Your task to perform on an android device: What's on my calendar today? Image 0: 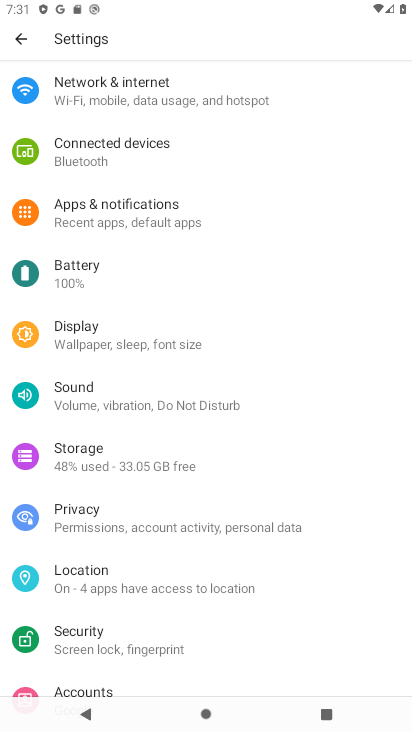
Step 0: press home button
Your task to perform on an android device: What's on my calendar today? Image 1: 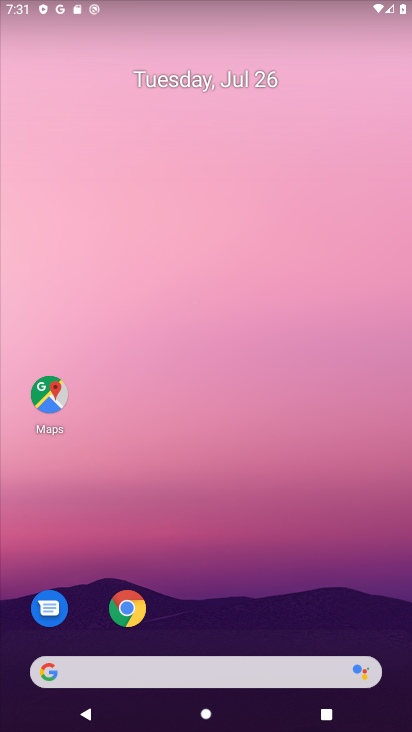
Step 1: drag from (171, 597) to (325, 61)
Your task to perform on an android device: What's on my calendar today? Image 2: 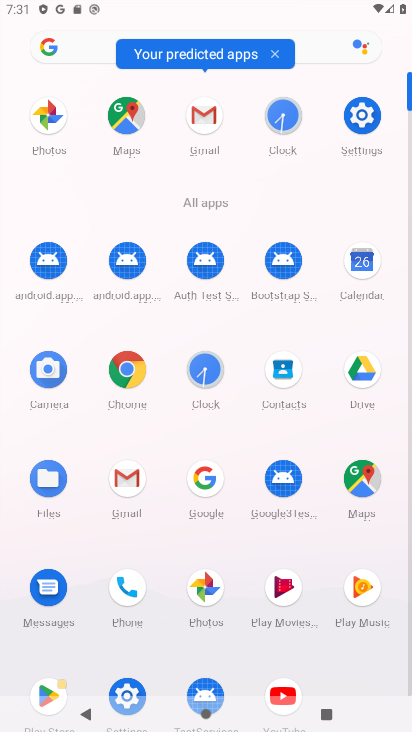
Step 2: click (370, 264)
Your task to perform on an android device: What's on my calendar today? Image 3: 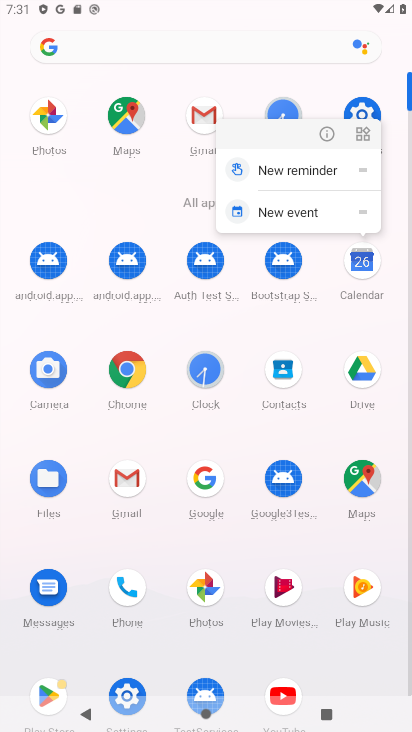
Step 3: click (373, 267)
Your task to perform on an android device: What's on my calendar today? Image 4: 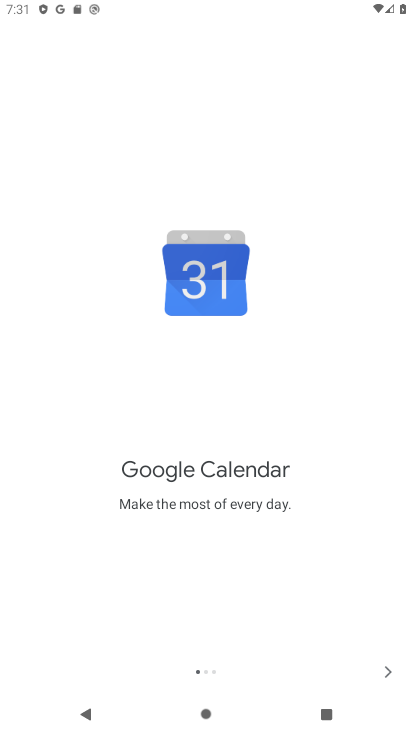
Step 4: click (385, 674)
Your task to perform on an android device: What's on my calendar today? Image 5: 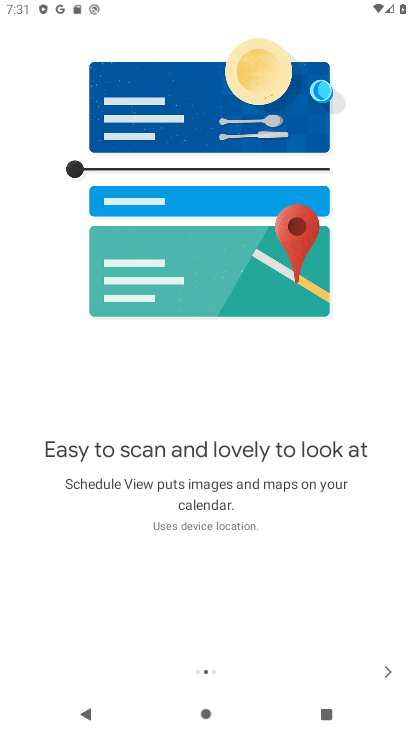
Step 5: click (387, 674)
Your task to perform on an android device: What's on my calendar today? Image 6: 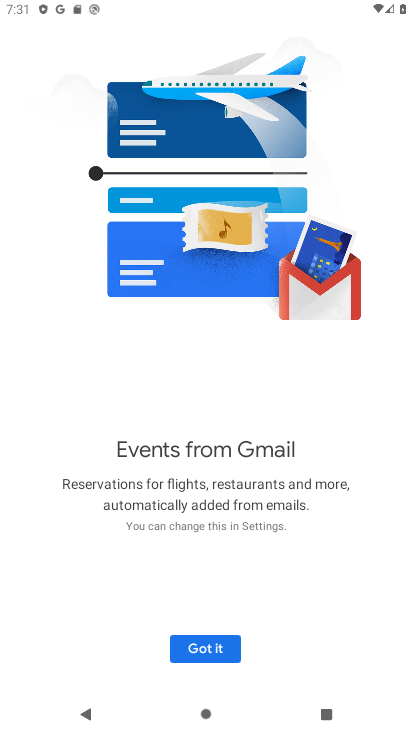
Step 6: click (230, 654)
Your task to perform on an android device: What's on my calendar today? Image 7: 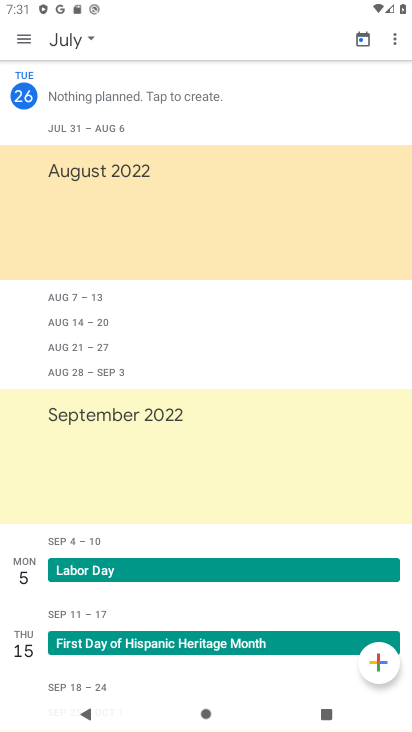
Step 7: click (66, 34)
Your task to perform on an android device: What's on my calendar today? Image 8: 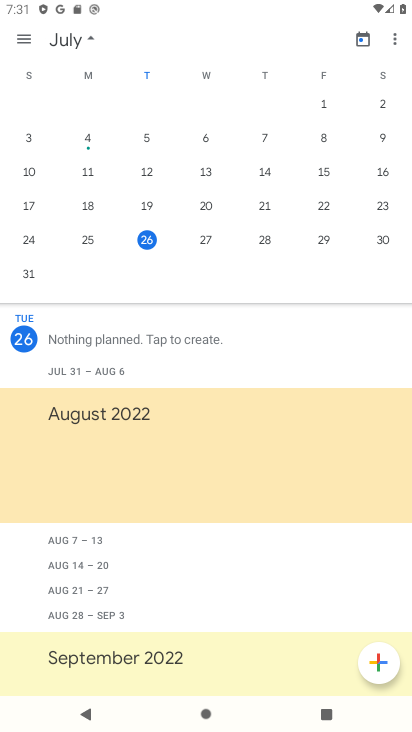
Step 8: click (145, 239)
Your task to perform on an android device: What's on my calendar today? Image 9: 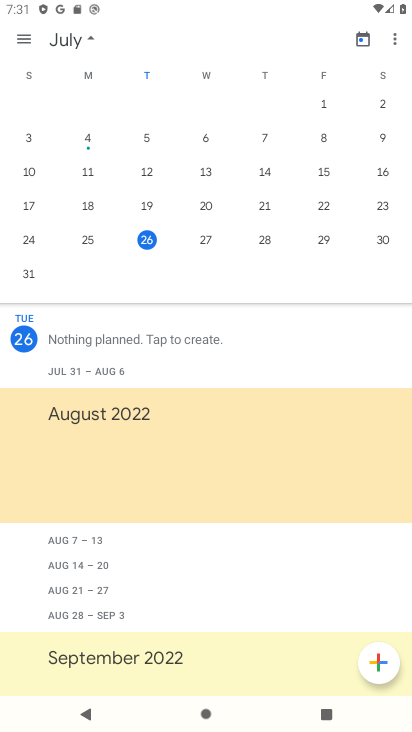
Step 9: task complete